Your task to perform on an android device: turn on translation in the chrome app Image 0: 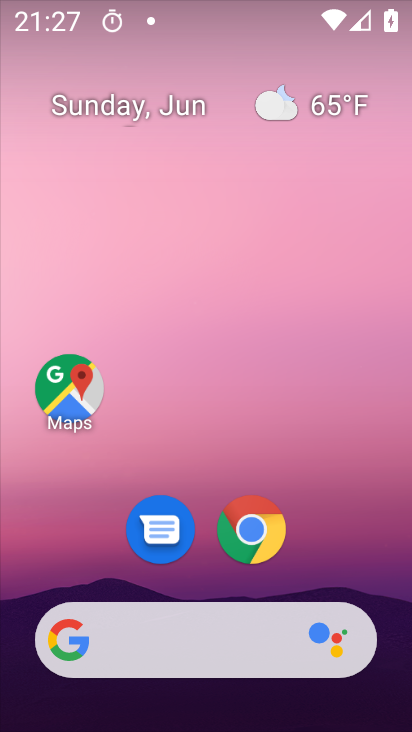
Step 0: click (257, 533)
Your task to perform on an android device: turn on translation in the chrome app Image 1: 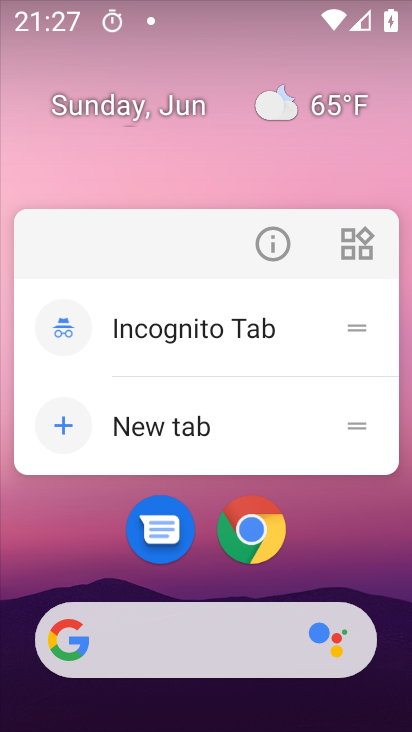
Step 1: click (259, 522)
Your task to perform on an android device: turn on translation in the chrome app Image 2: 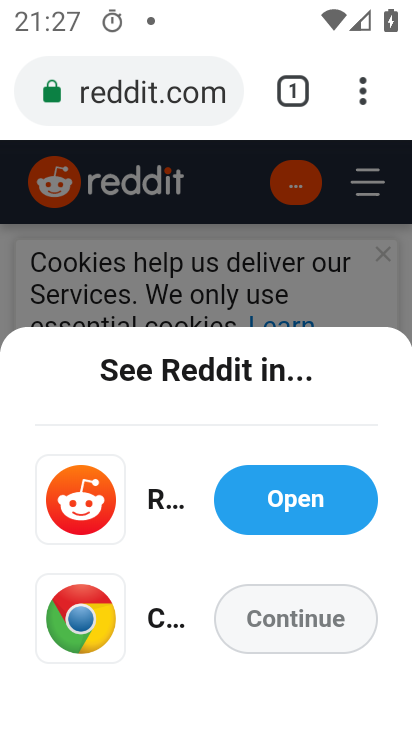
Step 2: click (334, 86)
Your task to perform on an android device: turn on translation in the chrome app Image 3: 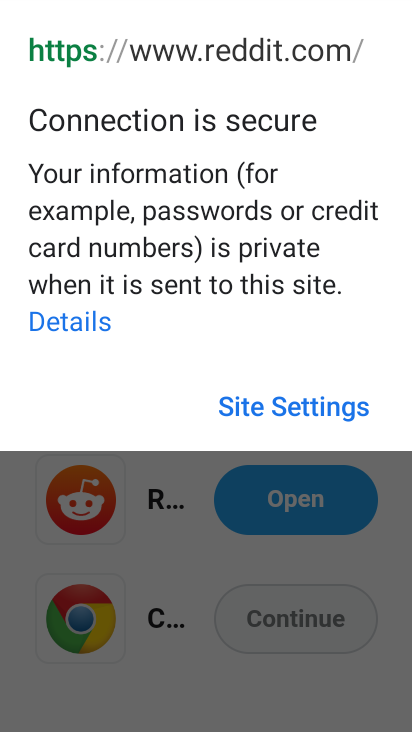
Step 3: click (243, 570)
Your task to perform on an android device: turn on translation in the chrome app Image 4: 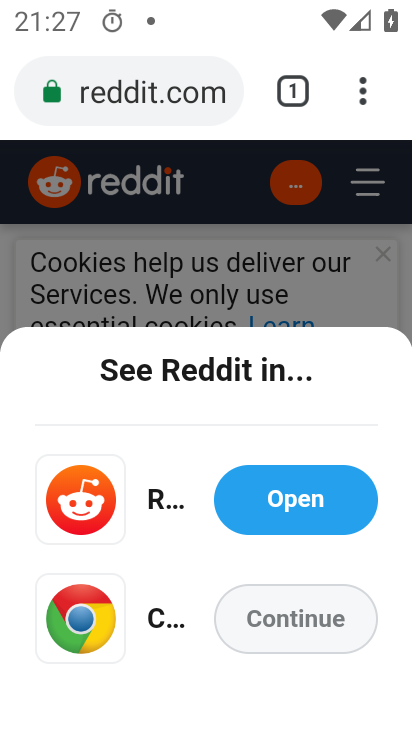
Step 4: click (404, 91)
Your task to perform on an android device: turn on translation in the chrome app Image 5: 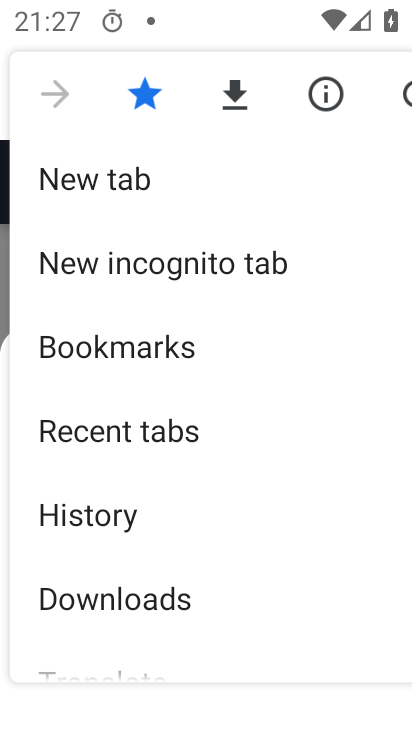
Step 5: drag from (139, 640) to (207, 157)
Your task to perform on an android device: turn on translation in the chrome app Image 6: 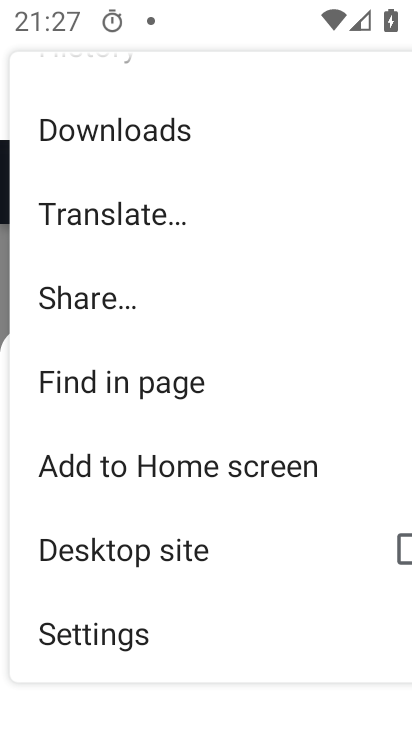
Step 6: click (93, 623)
Your task to perform on an android device: turn on translation in the chrome app Image 7: 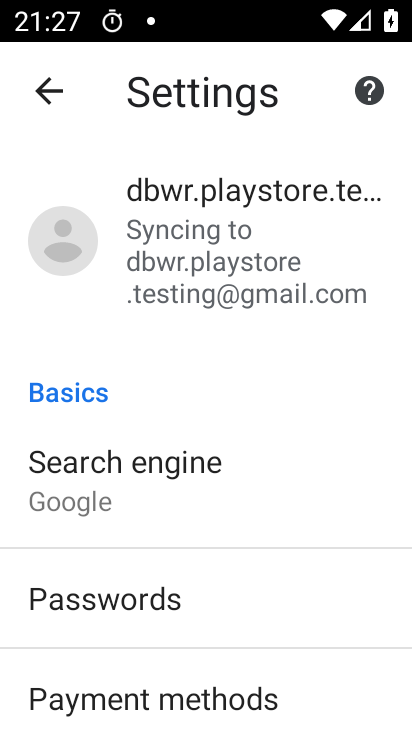
Step 7: drag from (129, 647) to (153, 252)
Your task to perform on an android device: turn on translation in the chrome app Image 8: 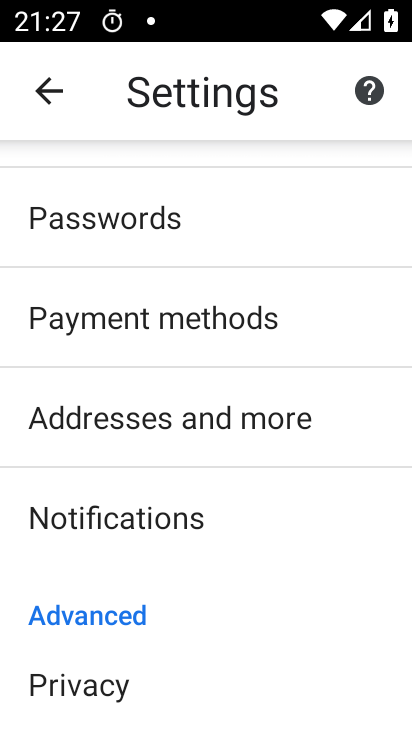
Step 8: drag from (155, 694) to (174, 183)
Your task to perform on an android device: turn on translation in the chrome app Image 9: 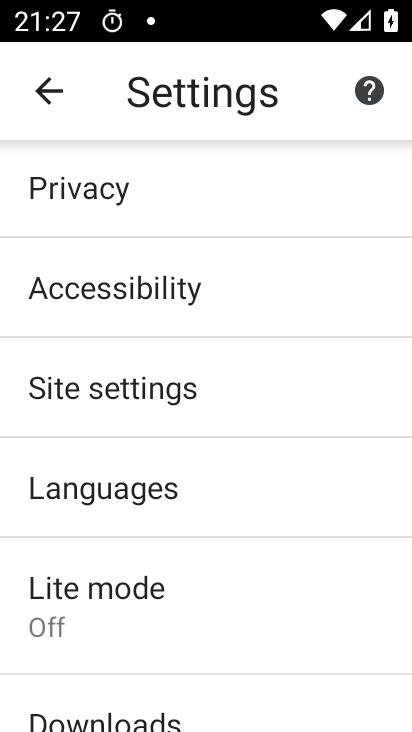
Step 9: click (160, 479)
Your task to perform on an android device: turn on translation in the chrome app Image 10: 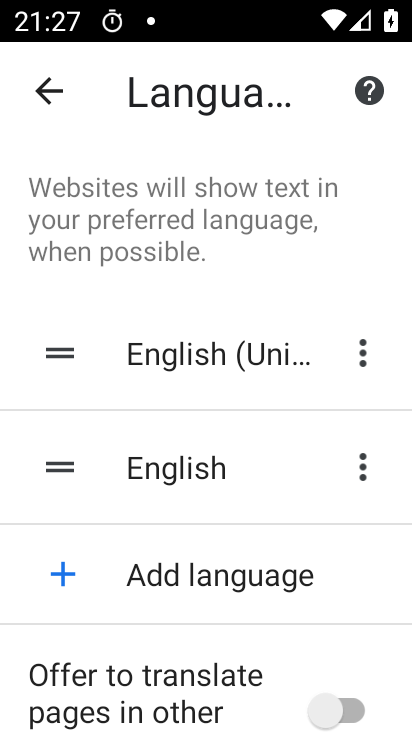
Step 10: click (342, 693)
Your task to perform on an android device: turn on translation in the chrome app Image 11: 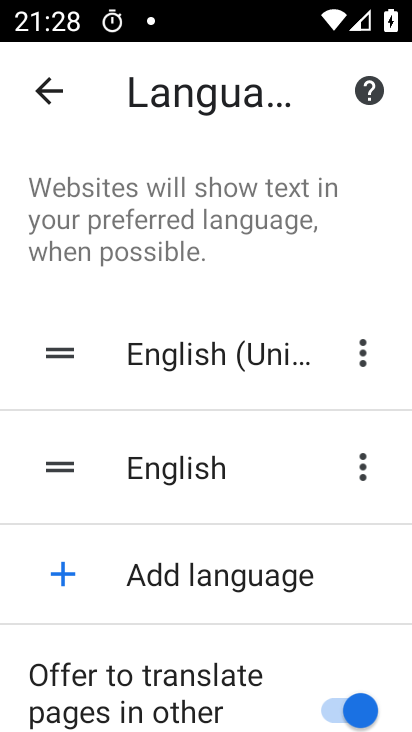
Step 11: task complete